Your task to perform on an android device: move a message to another label in the gmail app Image 0: 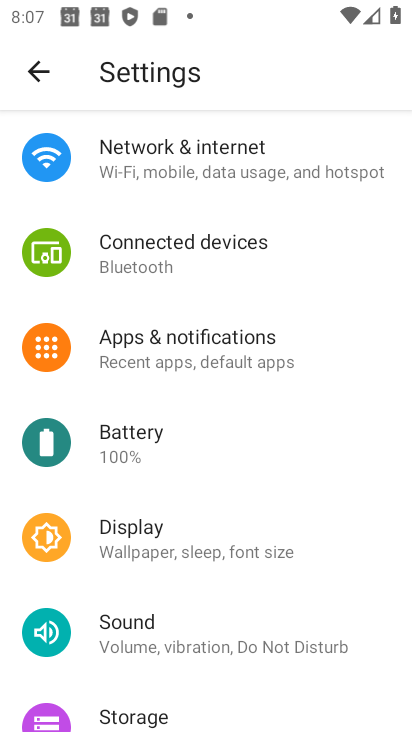
Step 0: press home button
Your task to perform on an android device: move a message to another label in the gmail app Image 1: 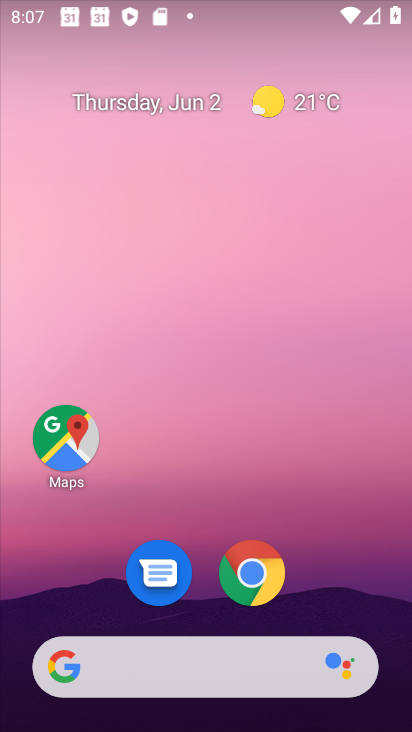
Step 1: drag from (323, 556) to (285, 135)
Your task to perform on an android device: move a message to another label in the gmail app Image 2: 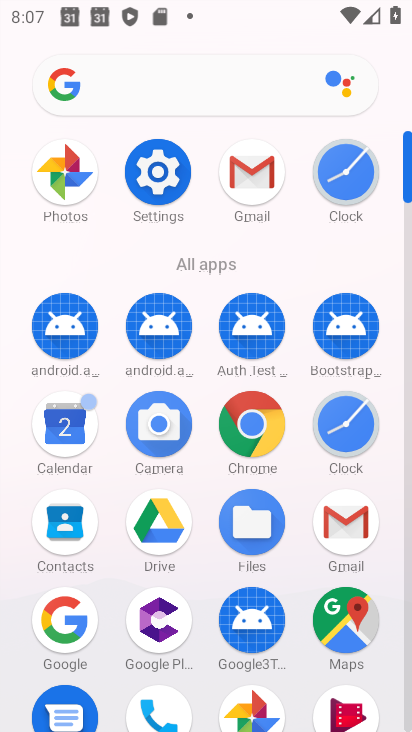
Step 2: click (249, 169)
Your task to perform on an android device: move a message to another label in the gmail app Image 3: 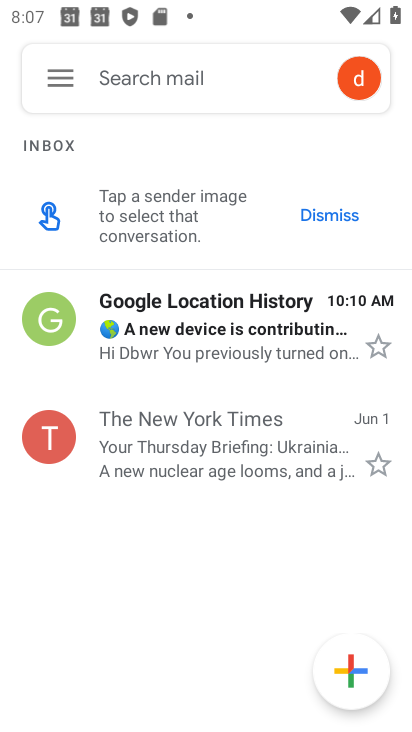
Step 3: click (202, 324)
Your task to perform on an android device: move a message to another label in the gmail app Image 4: 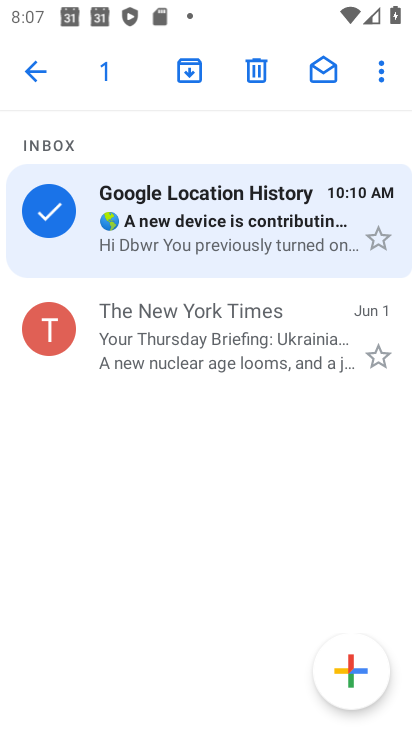
Step 4: click (367, 78)
Your task to perform on an android device: move a message to another label in the gmail app Image 5: 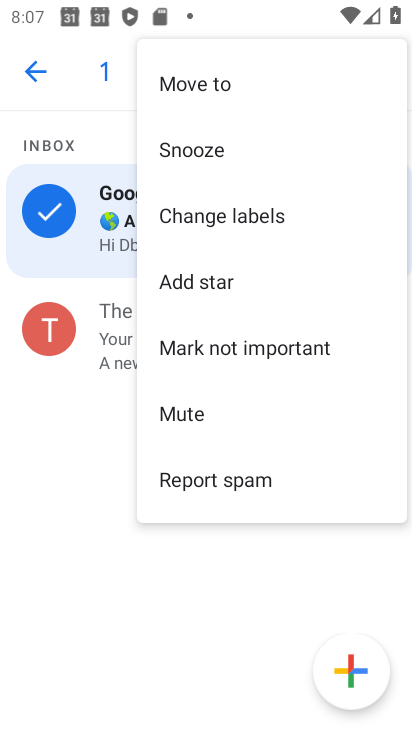
Step 5: click (226, 218)
Your task to perform on an android device: move a message to another label in the gmail app Image 6: 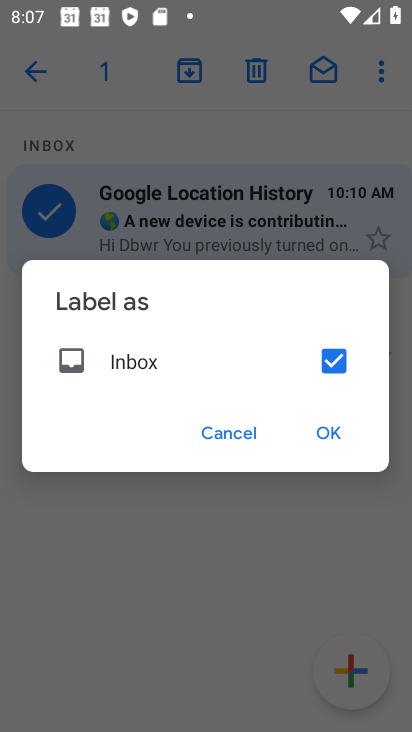
Step 6: click (332, 433)
Your task to perform on an android device: move a message to another label in the gmail app Image 7: 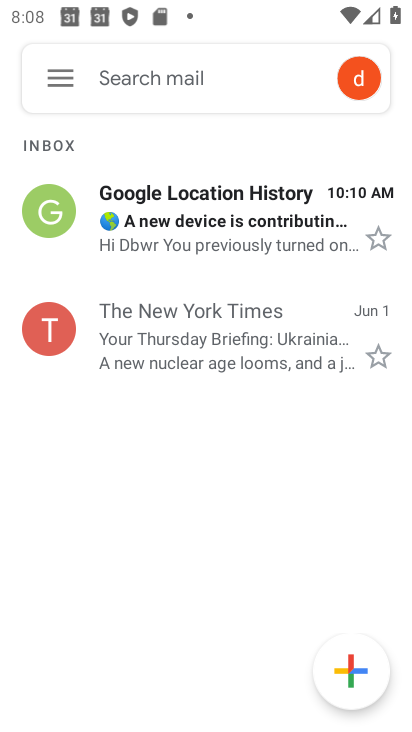
Step 7: task complete